Your task to perform on an android device: open chrome privacy settings Image 0: 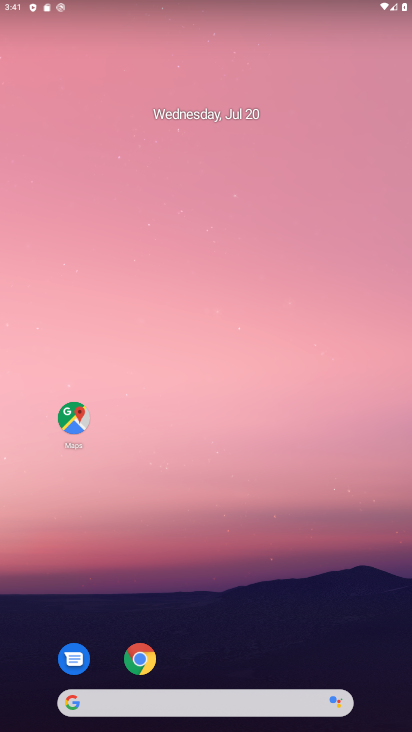
Step 0: drag from (192, 613) to (179, 200)
Your task to perform on an android device: open chrome privacy settings Image 1: 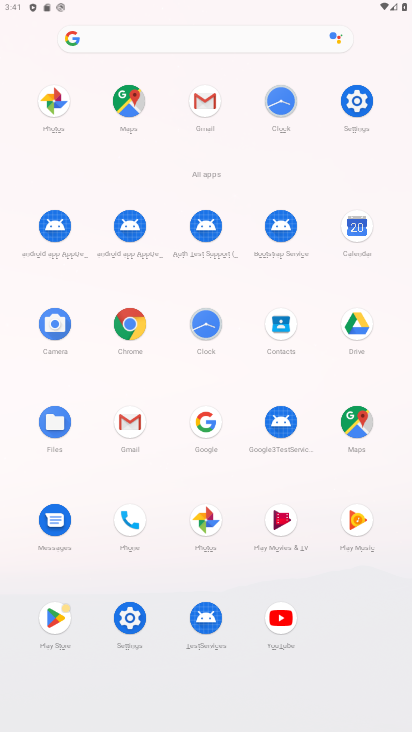
Step 1: drag from (299, 539) to (325, 169)
Your task to perform on an android device: open chrome privacy settings Image 2: 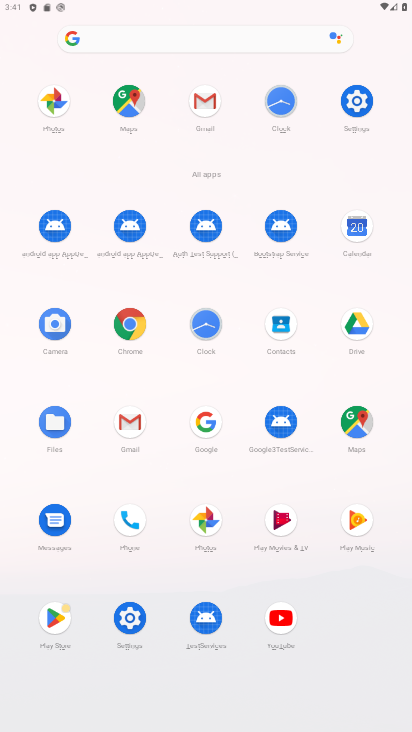
Step 2: click (364, 111)
Your task to perform on an android device: open chrome privacy settings Image 3: 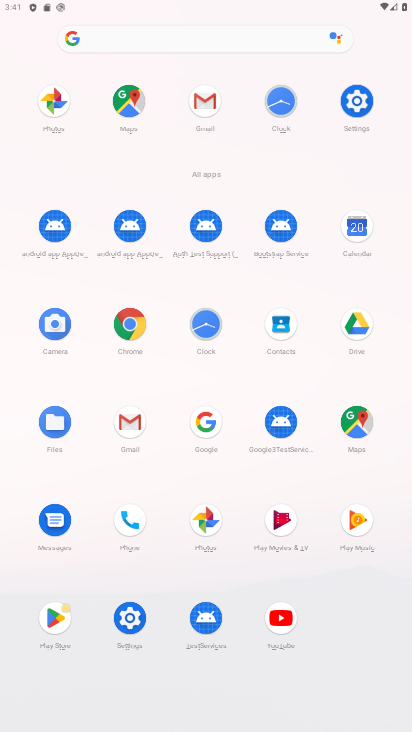
Step 3: click (363, 111)
Your task to perform on an android device: open chrome privacy settings Image 4: 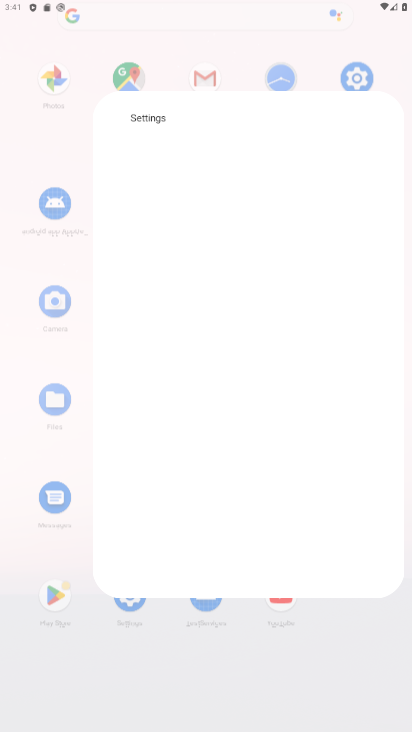
Step 4: click (362, 112)
Your task to perform on an android device: open chrome privacy settings Image 5: 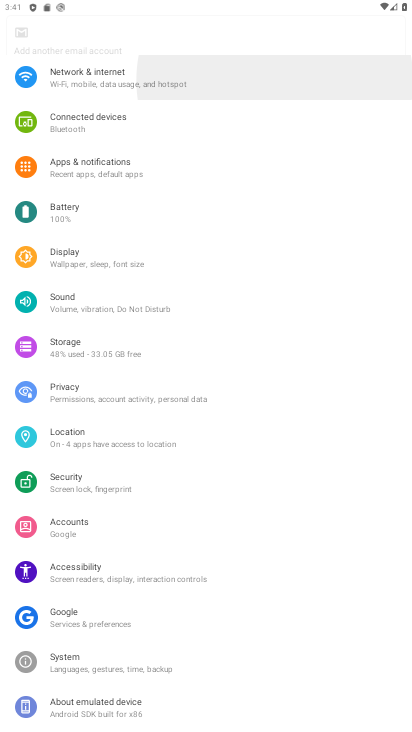
Step 5: click (363, 112)
Your task to perform on an android device: open chrome privacy settings Image 6: 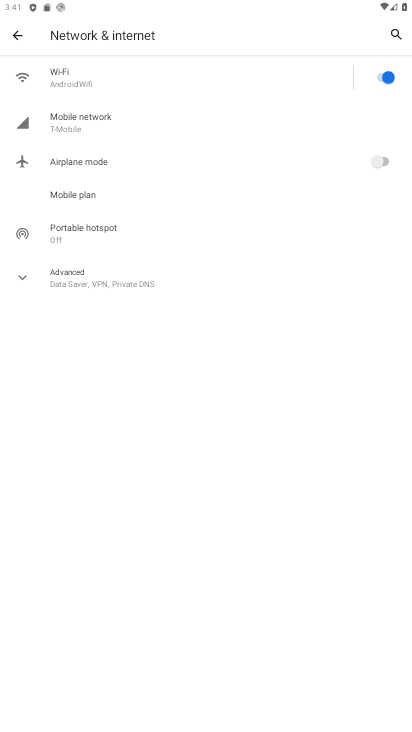
Step 6: click (22, 23)
Your task to perform on an android device: open chrome privacy settings Image 7: 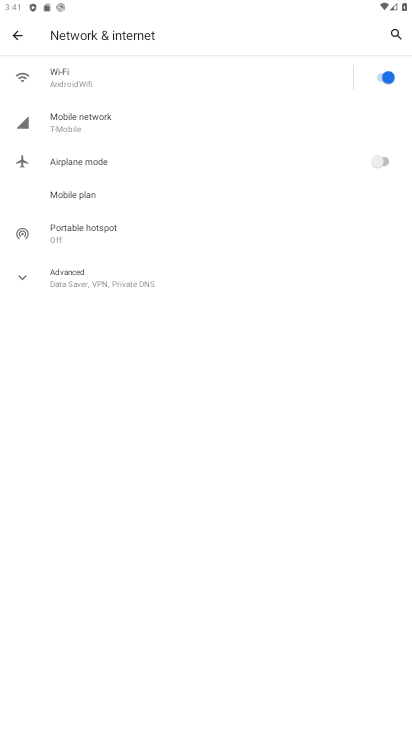
Step 7: click (22, 23)
Your task to perform on an android device: open chrome privacy settings Image 8: 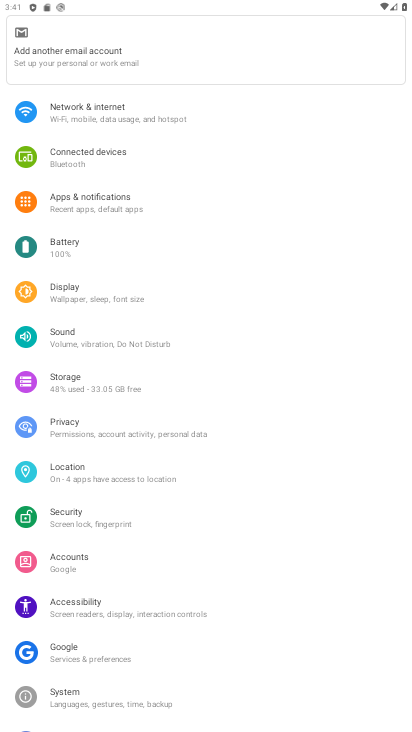
Step 8: click (100, 403)
Your task to perform on an android device: open chrome privacy settings Image 9: 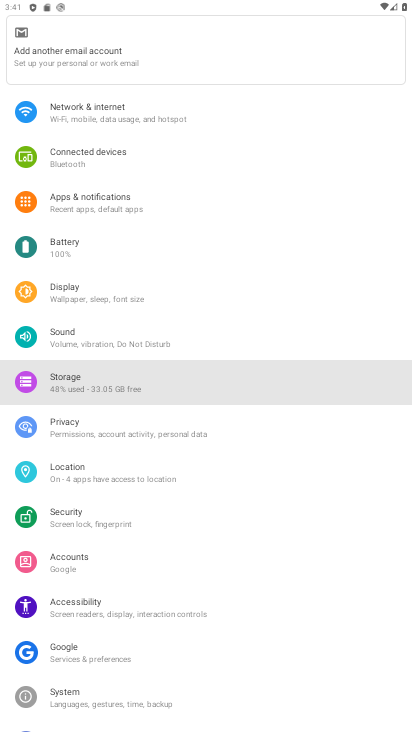
Step 9: click (96, 410)
Your task to perform on an android device: open chrome privacy settings Image 10: 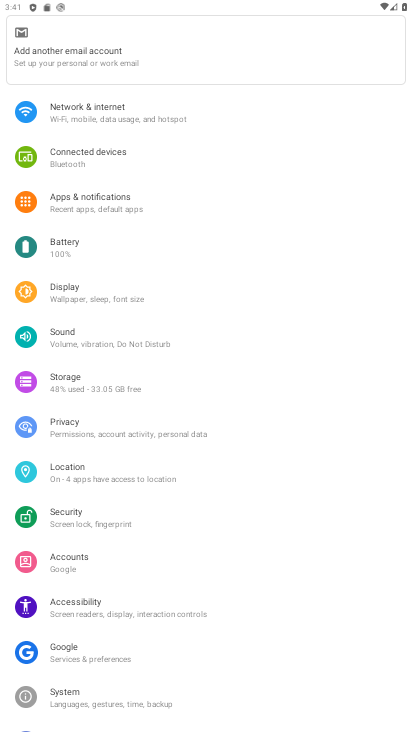
Step 10: click (95, 425)
Your task to perform on an android device: open chrome privacy settings Image 11: 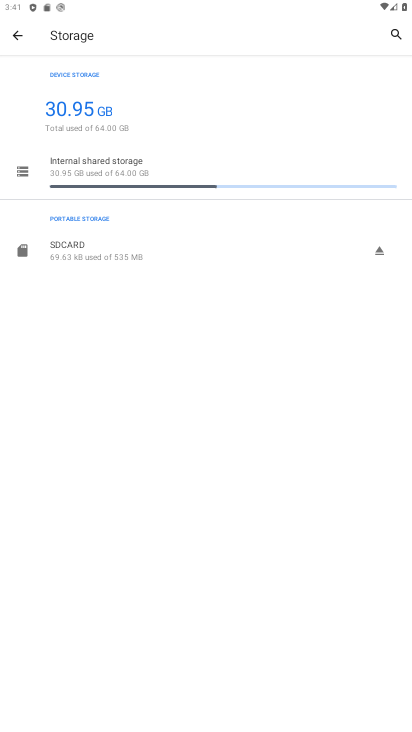
Step 11: click (103, 434)
Your task to perform on an android device: open chrome privacy settings Image 12: 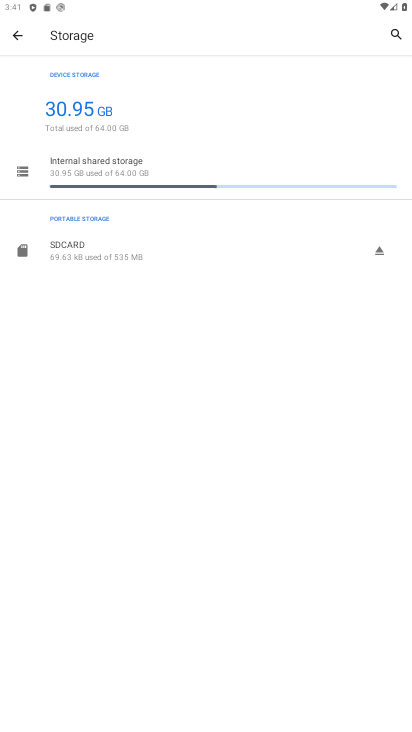
Step 12: task complete